Your task to perform on an android device: Open Chrome and go to the settings page Image 0: 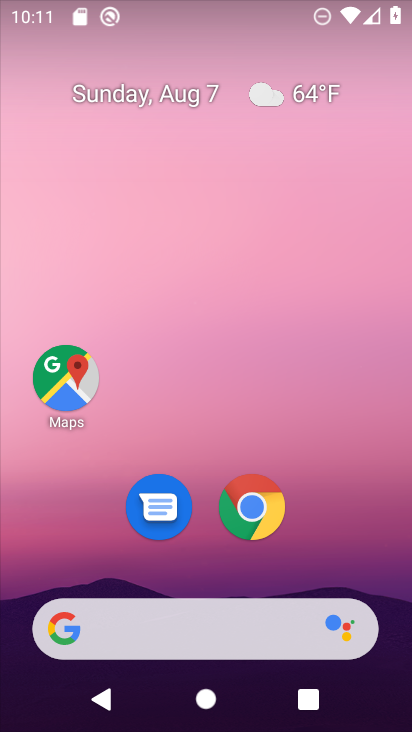
Step 0: drag from (345, 507) to (323, 47)
Your task to perform on an android device: Open Chrome and go to the settings page Image 1: 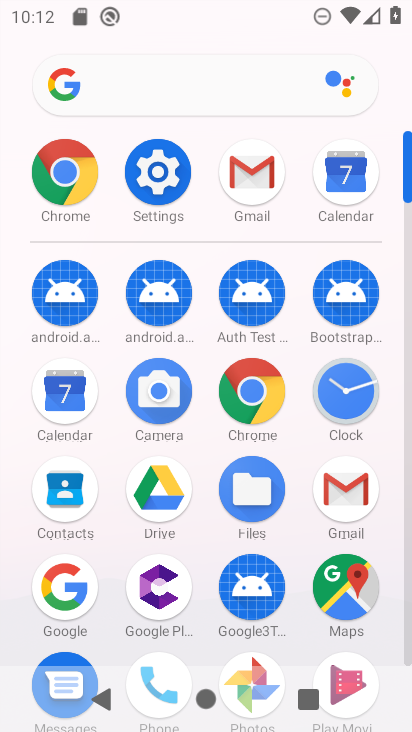
Step 1: click (252, 396)
Your task to perform on an android device: Open Chrome and go to the settings page Image 2: 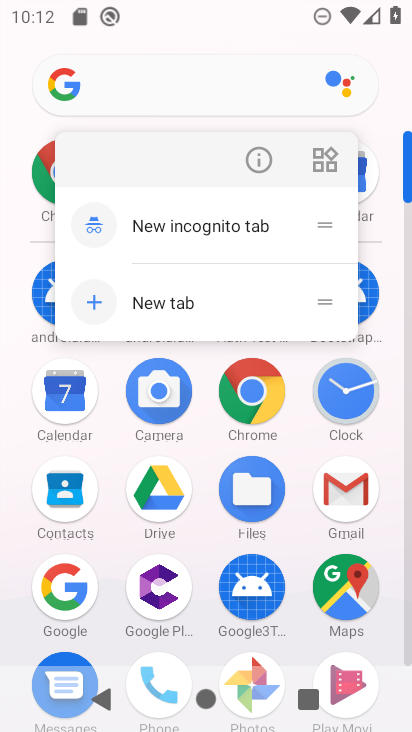
Step 2: click (262, 399)
Your task to perform on an android device: Open Chrome and go to the settings page Image 3: 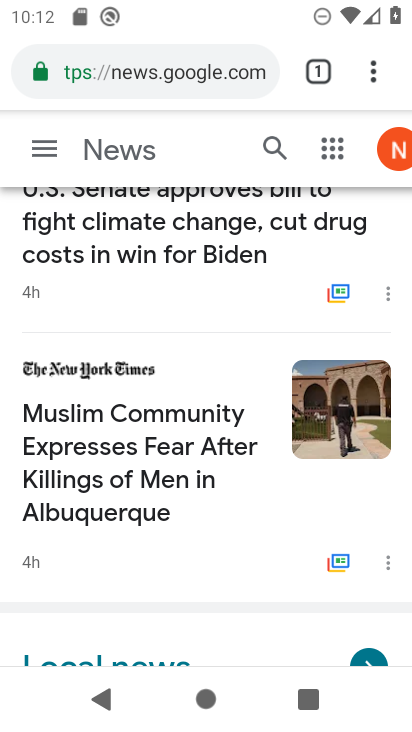
Step 3: task complete